Your task to perform on an android device: see sites visited before in the chrome app Image 0: 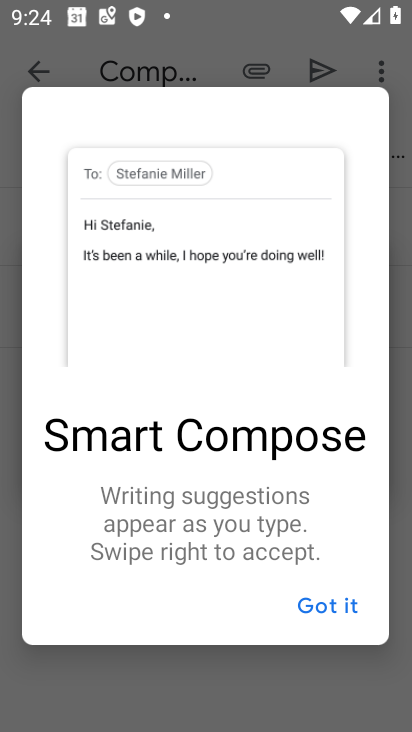
Step 0: press home button
Your task to perform on an android device: see sites visited before in the chrome app Image 1: 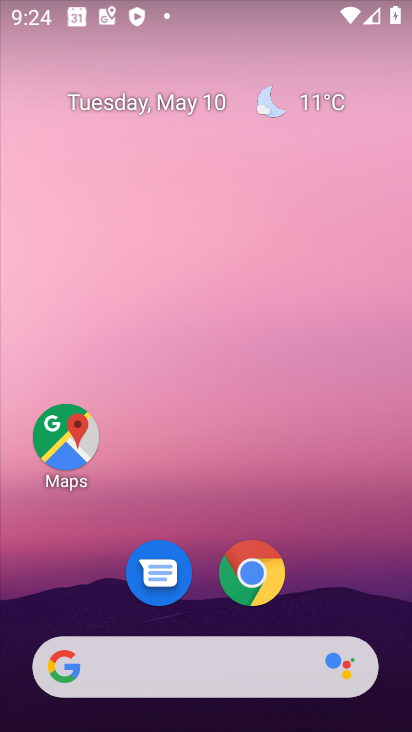
Step 1: click (258, 577)
Your task to perform on an android device: see sites visited before in the chrome app Image 2: 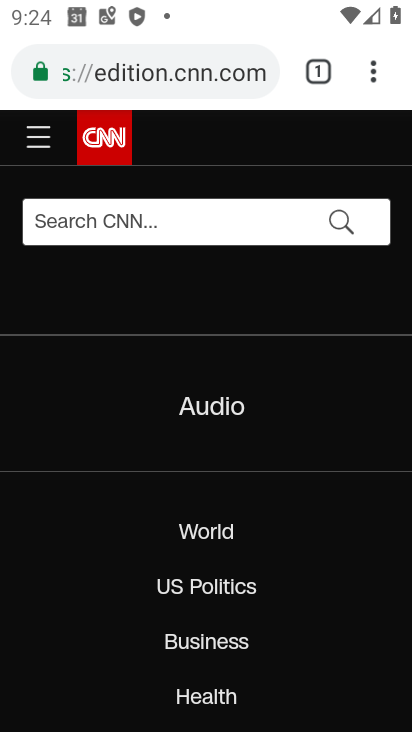
Step 2: task complete